Your task to perform on an android device: allow notifications from all sites in the chrome app Image 0: 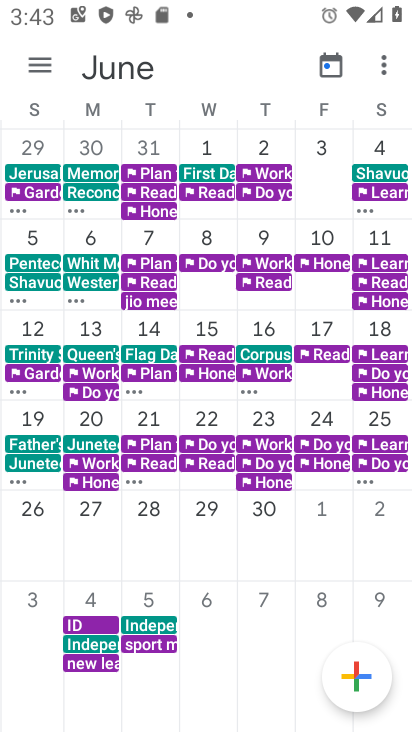
Step 0: press home button
Your task to perform on an android device: allow notifications from all sites in the chrome app Image 1: 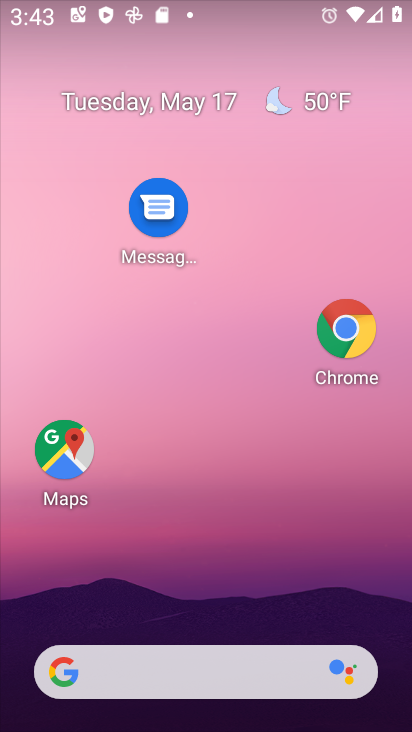
Step 1: click (349, 315)
Your task to perform on an android device: allow notifications from all sites in the chrome app Image 2: 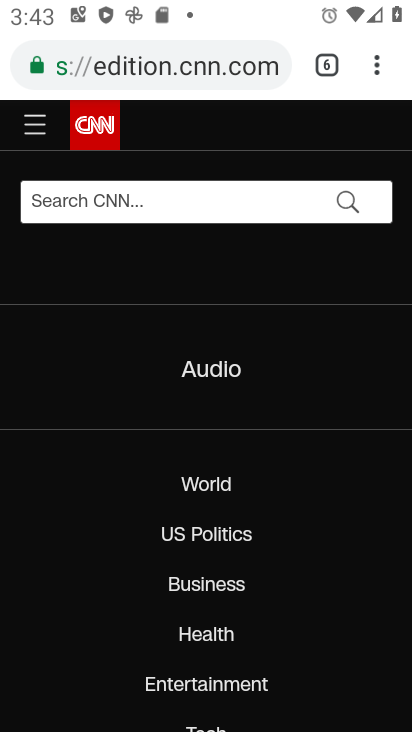
Step 2: click (384, 76)
Your task to perform on an android device: allow notifications from all sites in the chrome app Image 3: 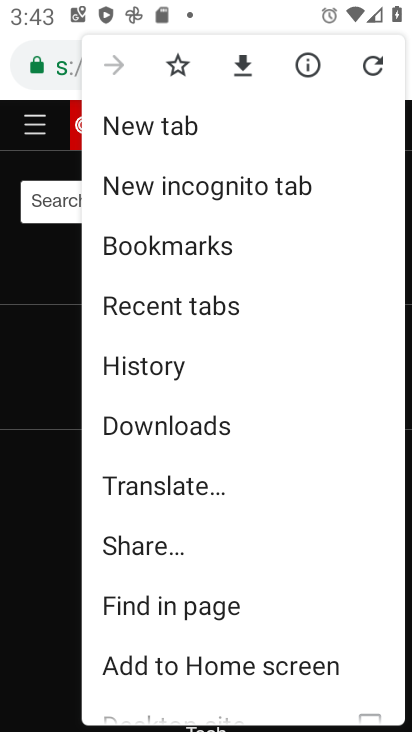
Step 3: drag from (193, 588) to (213, 228)
Your task to perform on an android device: allow notifications from all sites in the chrome app Image 4: 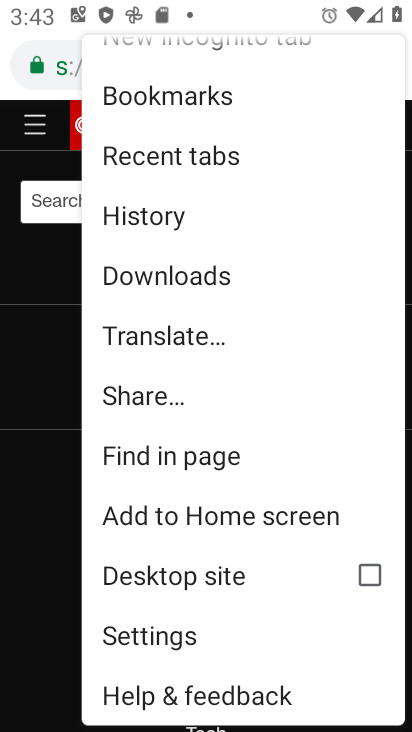
Step 4: click (181, 615)
Your task to perform on an android device: allow notifications from all sites in the chrome app Image 5: 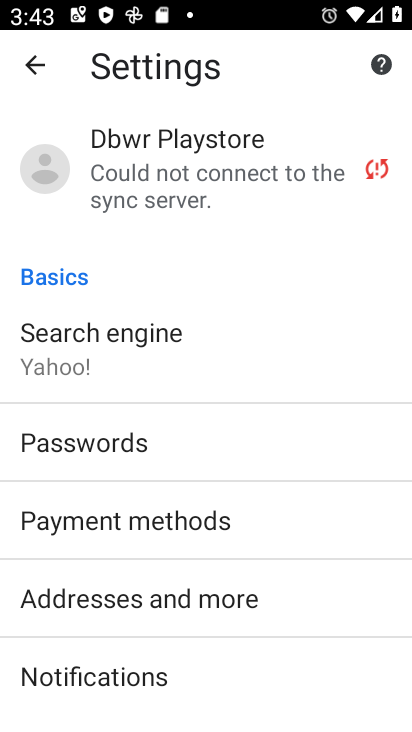
Step 5: drag from (189, 615) to (198, 321)
Your task to perform on an android device: allow notifications from all sites in the chrome app Image 6: 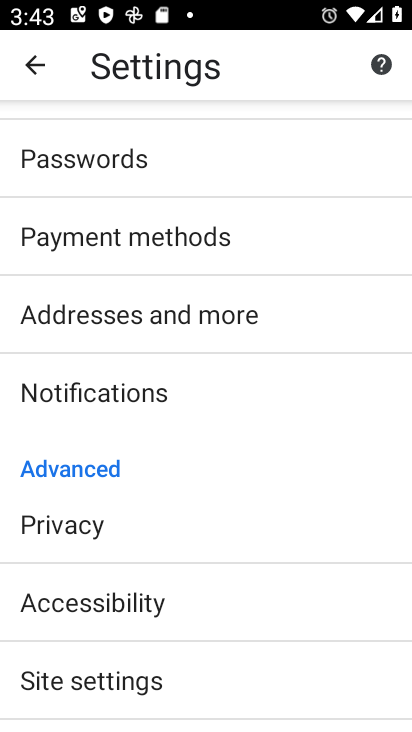
Step 6: drag from (214, 567) to (253, 222)
Your task to perform on an android device: allow notifications from all sites in the chrome app Image 7: 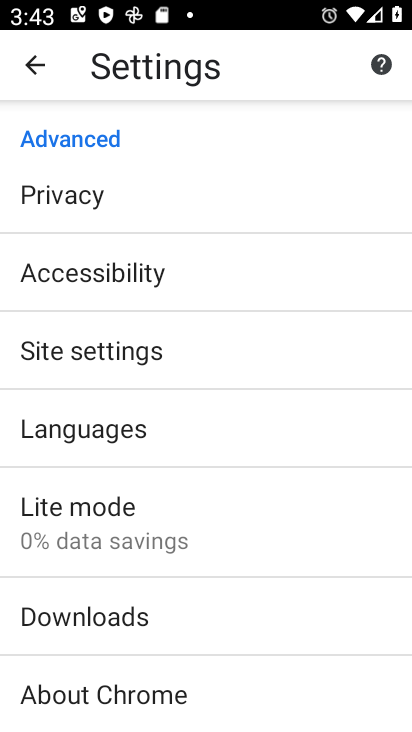
Step 7: drag from (244, 214) to (277, 557)
Your task to perform on an android device: allow notifications from all sites in the chrome app Image 8: 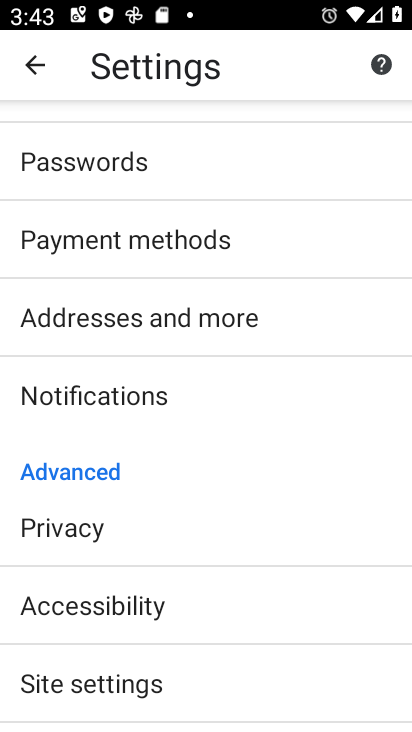
Step 8: click (178, 405)
Your task to perform on an android device: allow notifications from all sites in the chrome app Image 9: 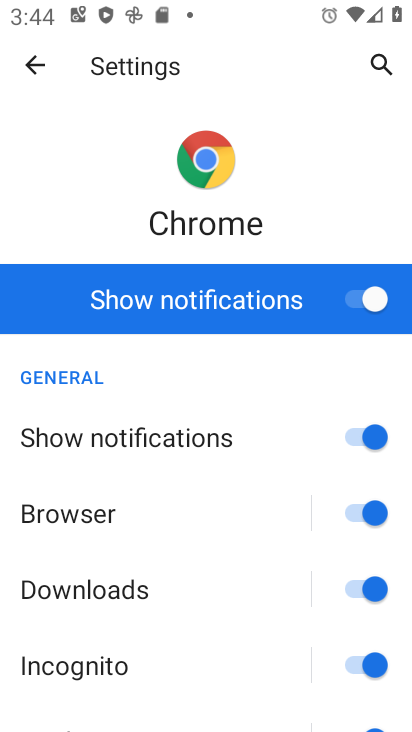
Step 9: click (352, 298)
Your task to perform on an android device: allow notifications from all sites in the chrome app Image 10: 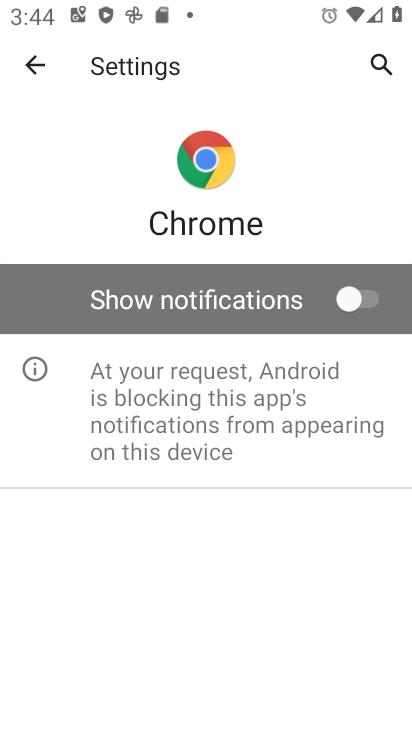
Step 10: task complete